Your task to perform on an android device: move an email to a new category in the gmail app Image 0: 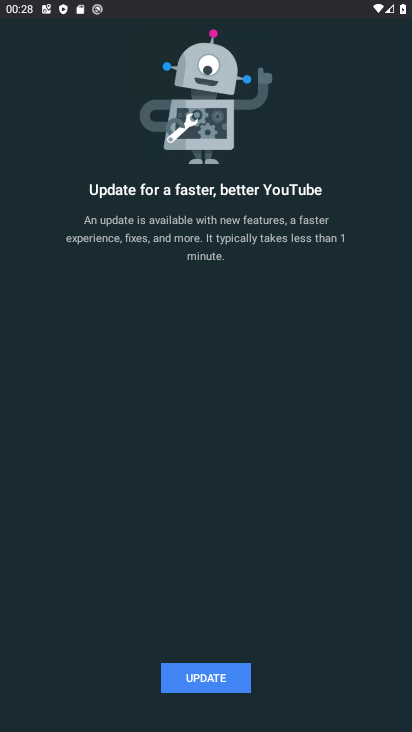
Step 0: drag from (297, 650) to (256, 232)
Your task to perform on an android device: move an email to a new category in the gmail app Image 1: 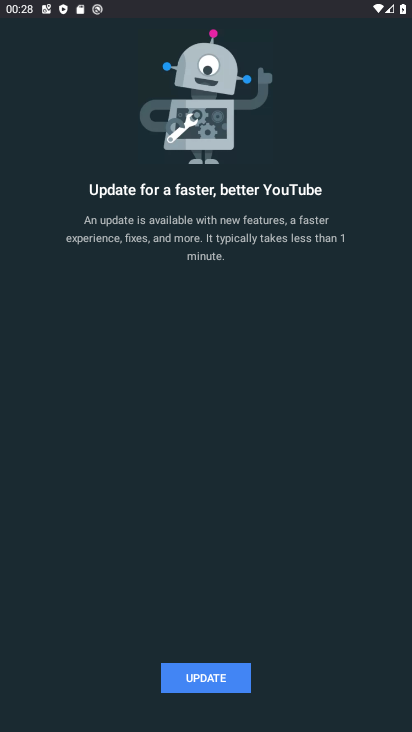
Step 1: press back button
Your task to perform on an android device: move an email to a new category in the gmail app Image 2: 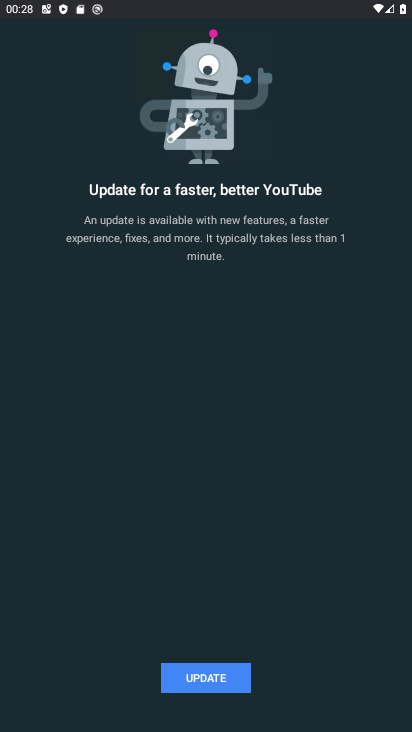
Step 2: press back button
Your task to perform on an android device: move an email to a new category in the gmail app Image 3: 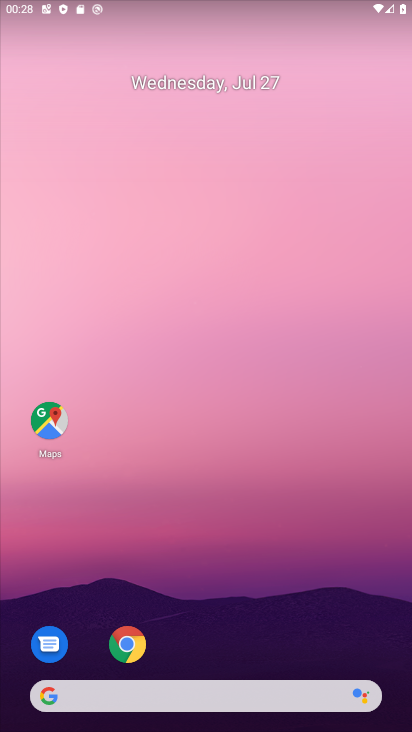
Step 3: drag from (275, 579) to (124, 6)
Your task to perform on an android device: move an email to a new category in the gmail app Image 4: 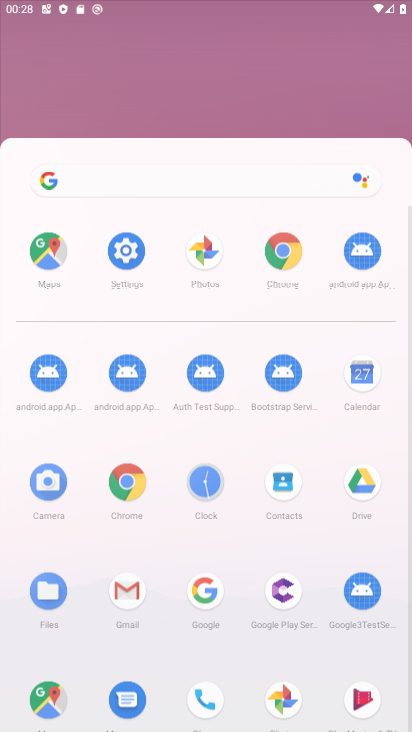
Step 4: drag from (182, 404) to (197, 9)
Your task to perform on an android device: move an email to a new category in the gmail app Image 5: 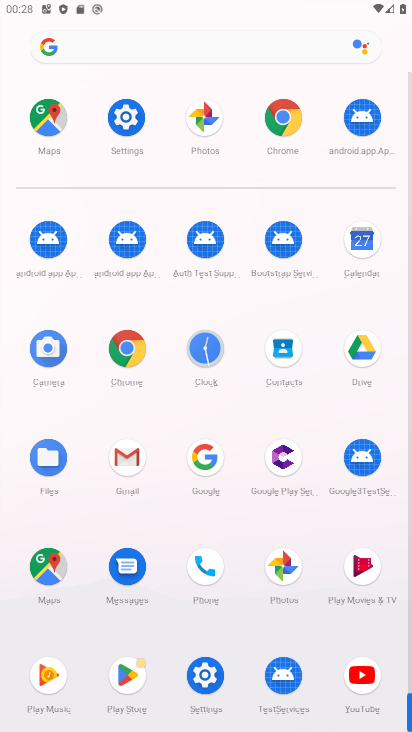
Step 5: drag from (272, 334) to (286, 49)
Your task to perform on an android device: move an email to a new category in the gmail app Image 6: 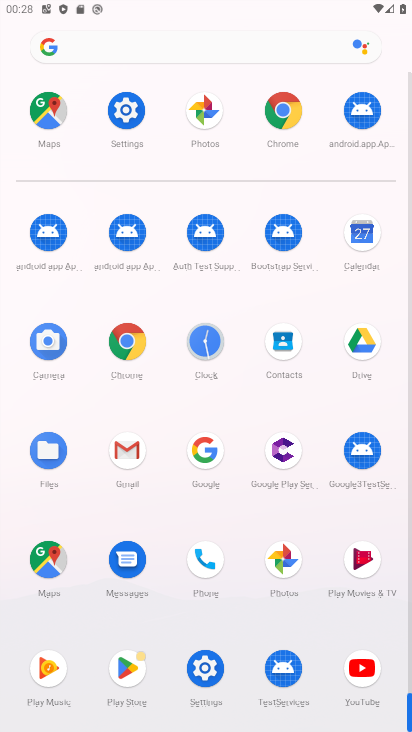
Step 6: click (125, 444)
Your task to perform on an android device: move an email to a new category in the gmail app Image 7: 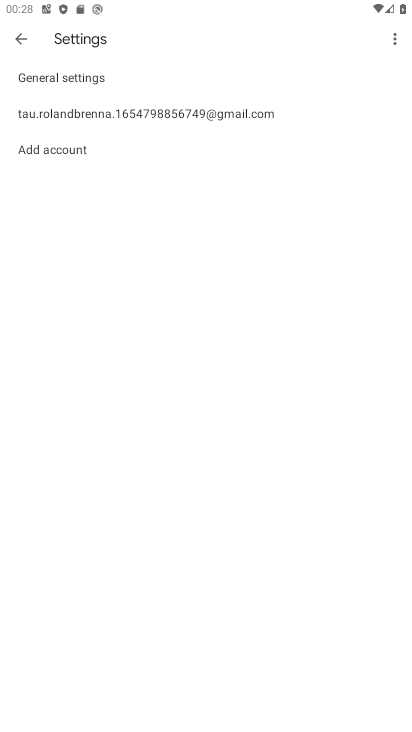
Step 7: click (11, 39)
Your task to perform on an android device: move an email to a new category in the gmail app Image 8: 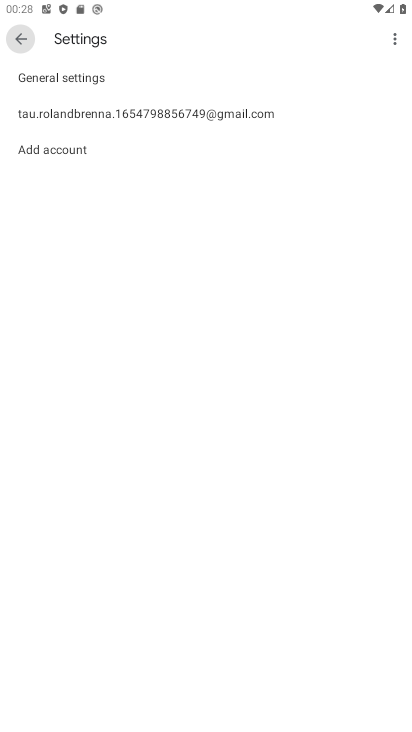
Step 8: click (13, 40)
Your task to perform on an android device: move an email to a new category in the gmail app Image 9: 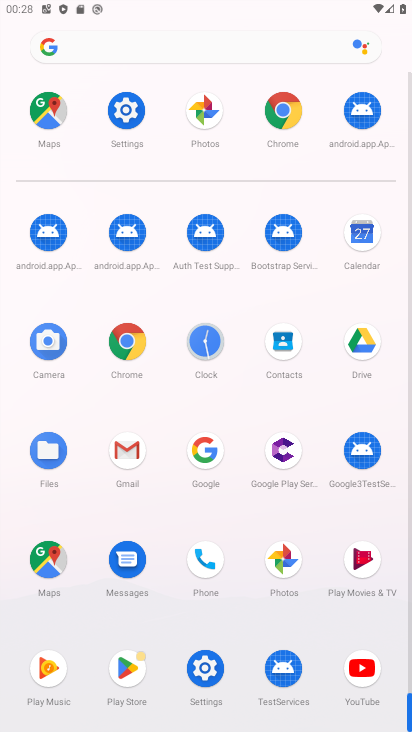
Step 9: click (115, 452)
Your task to perform on an android device: move an email to a new category in the gmail app Image 10: 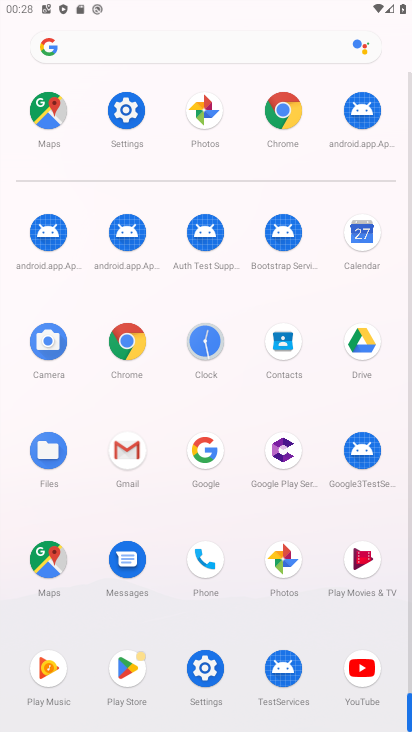
Step 10: click (115, 452)
Your task to perform on an android device: move an email to a new category in the gmail app Image 11: 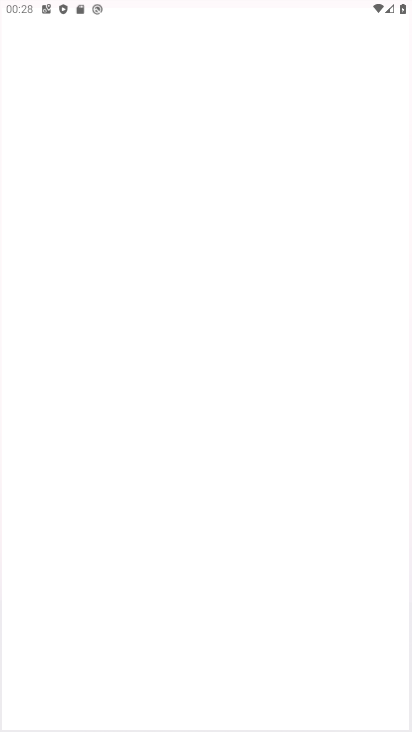
Step 11: click (115, 450)
Your task to perform on an android device: move an email to a new category in the gmail app Image 12: 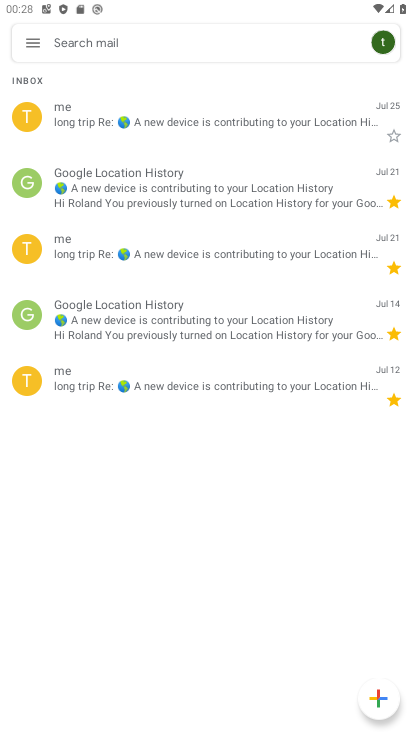
Step 12: click (398, 133)
Your task to perform on an android device: move an email to a new category in the gmail app Image 13: 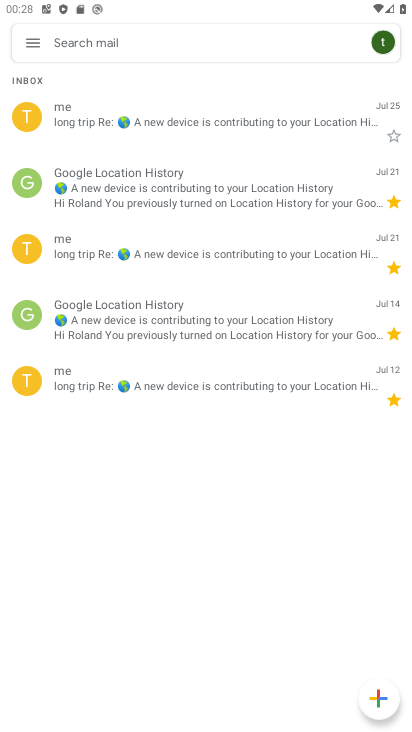
Step 13: click (396, 133)
Your task to perform on an android device: move an email to a new category in the gmail app Image 14: 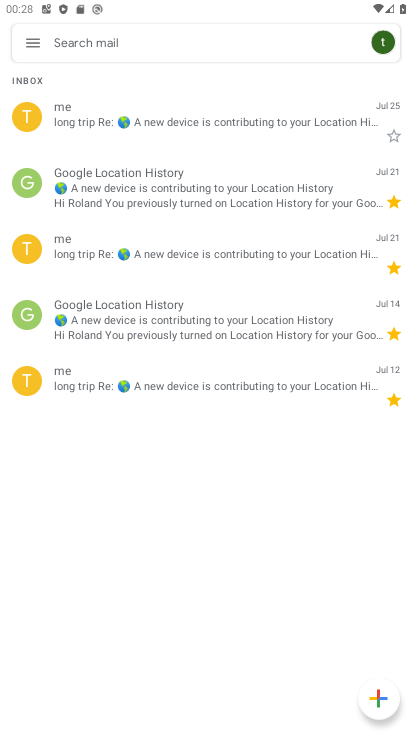
Step 14: task complete